Your task to perform on an android device: Show the shopping cart on ebay.com. Search for "razer naga" on ebay.com, select the first entry, add it to the cart, then select checkout. Image 0: 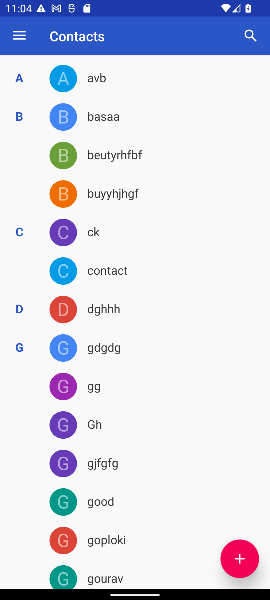
Step 0: press home button
Your task to perform on an android device: Show the shopping cart on ebay.com. Search for "razer naga" on ebay.com, select the first entry, add it to the cart, then select checkout. Image 1: 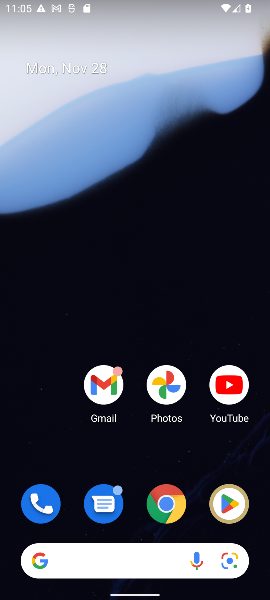
Step 1: click (160, 505)
Your task to perform on an android device: Show the shopping cart on ebay.com. Search for "razer naga" on ebay.com, select the first entry, add it to the cart, then select checkout. Image 2: 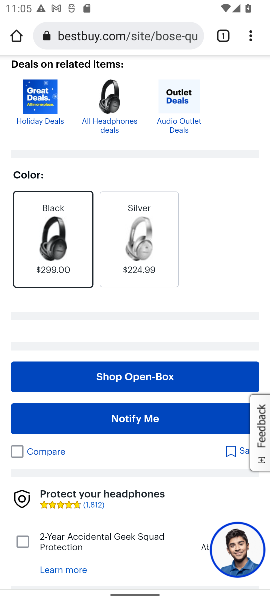
Step 2: click (123, 34)
Your task to perform on an android device: Show the shopping cart on ebay.com. Search for "razer naga" on ebay.com, select the first entry, add it to the cart, then select checkout. Image 3: 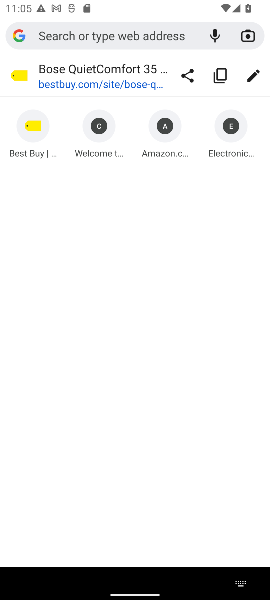
Step 3: type "ebay.com"
Your task to perform on an android device: Show the shopping cart on ebay.com. Search for "razer naga" on ebay.com, select the first entry, add it to the cart, then select checkout. Image 4: 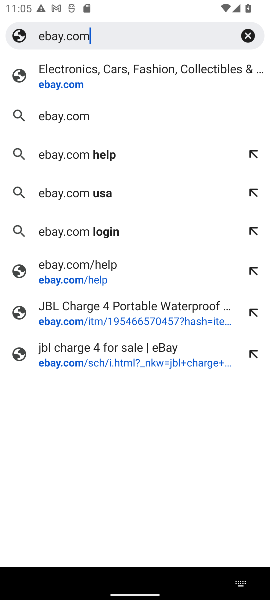
Step 4: click (53, 85)
Your task to perform on an android device: Show the shopping cart on ebay.com. Search for "razer naga" on ebay.com, select the first entry, add it to the cart, then select checkout. Image 5: 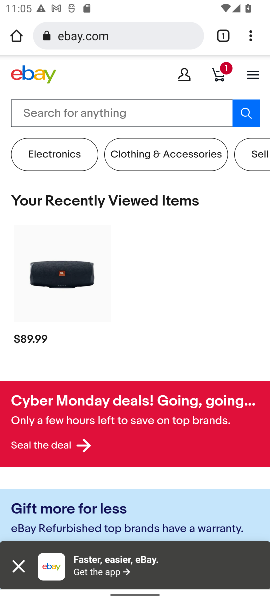
Step 5: click (216, 75)
Your task to perform on an android device: Show the shopping cart on ebay.com. Search for "razer naga" on ebay.com, select the first entry, add it to the cart, then select checkout. Image 6: 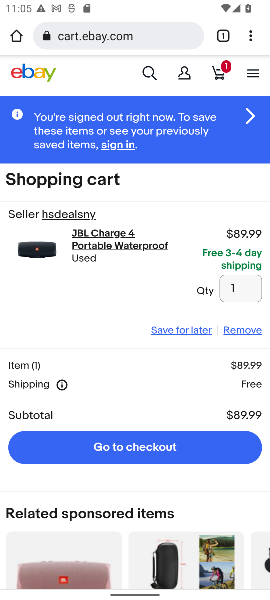
Step 6: click (141, 73)
Your task to perform on an android device: Show the shopping cart on ebay.com. Search for "razer naga" on ebay.com, select the first entry, add it to the cart, then select checkout. Image 7: 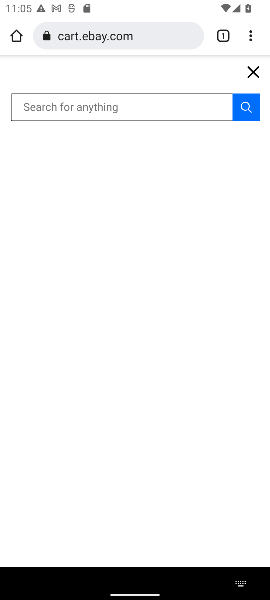
Step 7: type "razer naga"
Your task to perform on an android device: Show the shopping cart on ebay.com. Search for "razer naga" on ebay.com, select the first entry, add it to the cart, then select checkout. Image 8: 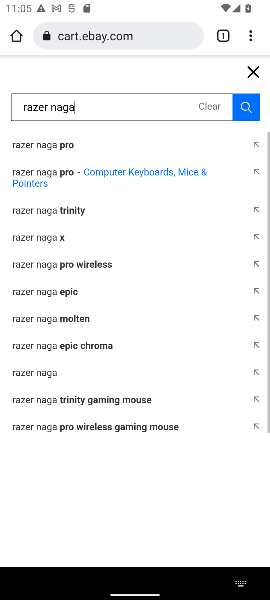
Step 8: click (29, 370)
Your task to perform on an android device: Show the shopping cart on ebay.com. Search for "razer naga" on ebay.com, select the first entry, add it to the cart, then select checkout. Image 9: 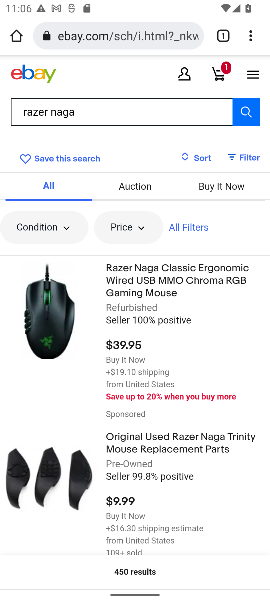
Step 9: click (143, 290)
Your task to perform on an android device: Show the shopping cart on ebay.com. Search for "razer naga" on ebay.com, select the first entry, add it to the cart, then select checkout. Image 10: 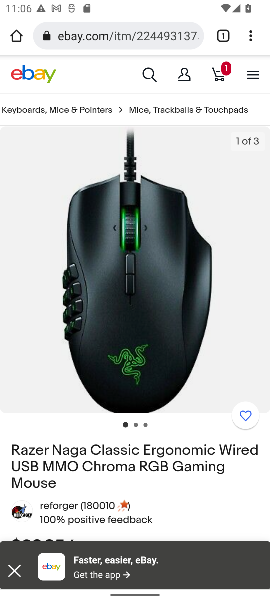
Step 10: drag from (171, 412) to (177, 163)
Your task to perform on an android device: Show the shopping cart on ebay.com. Search for "razer naga" on ebay.com, select the first entry, add it to the cart, then select checkout. Image 11: 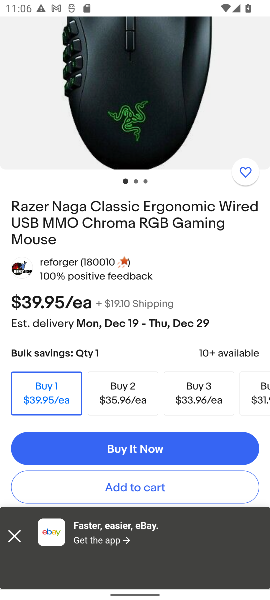
Step 11: drag from (170, 364) to (166, 192)
Your task to perform on an android device: Show the shopping cart on ebay.com. Search for "razer naga" on ebay.com, select the first entry, add it to the cart, then select checkout. Image 12: 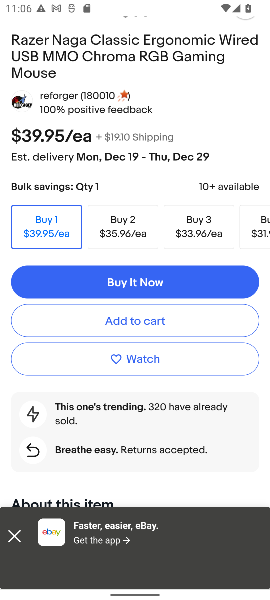
Step 12: click (118, 321)
Your task to perform on an android device: Show the shopping cart on ebay.com. Search for "razer naga" on ebay.com, select the first entry, add it to the cart, then select checkout. Image 13: 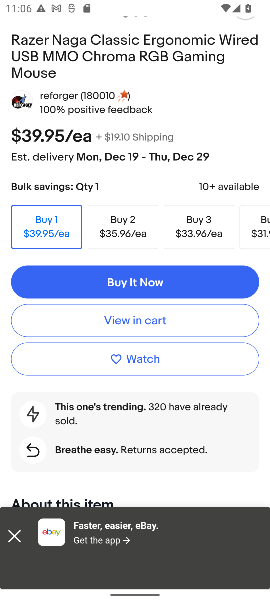
Step 13: click (122, 321)
Your task to perform on an android device: Show the shopping cart on ebay.com. Search for "razer naga" on ebay.com, select the first entry, add it to the cart, then select checkout. Image 14: 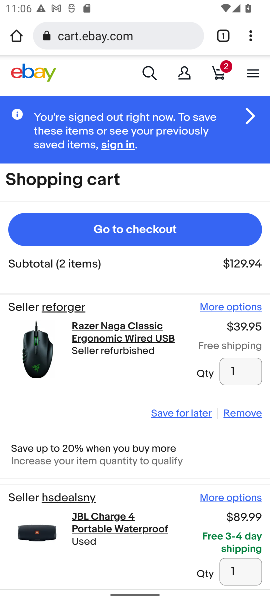
Step 14: click (129, 231)
Your task to perform on an android device: Show the shopping cart on ebay.com. Search for "razer naga" on ebay.com, select the first entry, add it to the cart, then select checkout. Image 15: 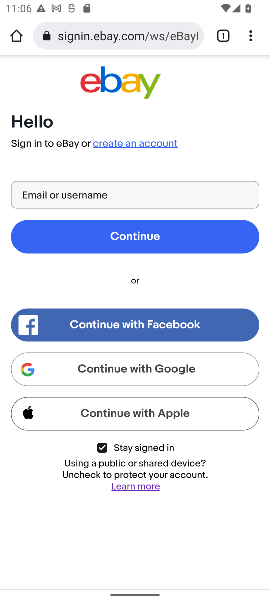
Step 15: task complete